Your task to perform on an android device: open wifi settings Image 0: 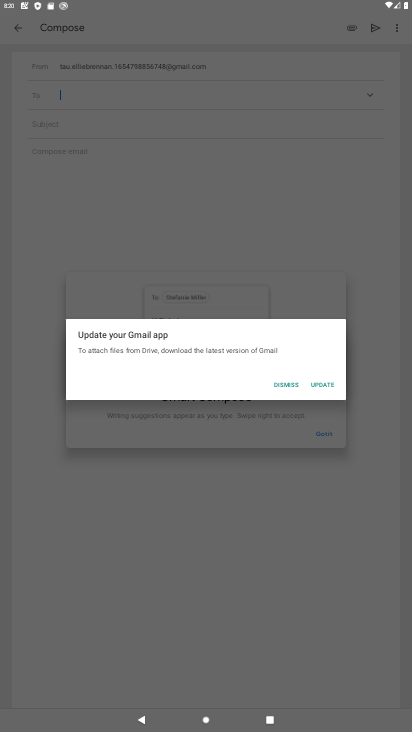
Step 0: drag from (146, 10) to (170, 625)
Your task to perform on an android device: open wifi settings Image 1: 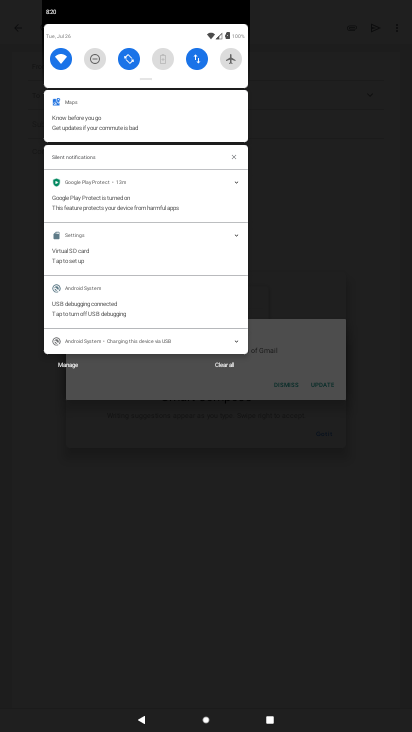
Step 1: click (60, 53)
Your task to perform on an android device: open wifi settings Image 2: 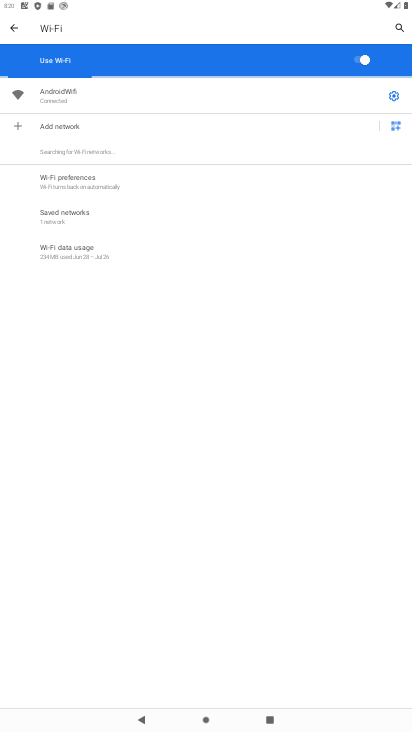
Step 2: task complete